Your task to perform on an android device: What's the weather today? Image 0: 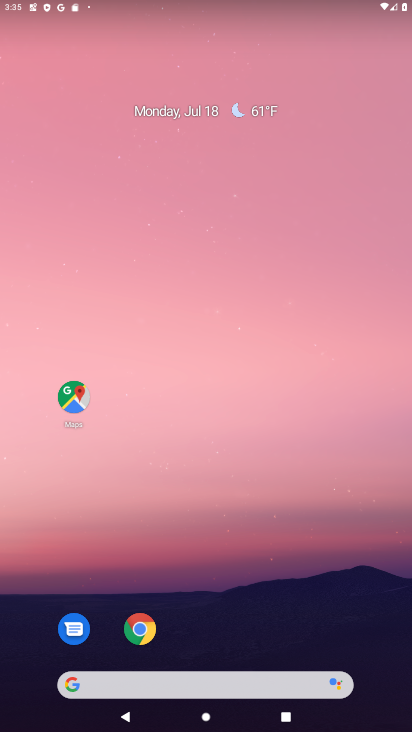
Step 0: drag from (251, 633) to (247, 313)
Your task to perform on an android device: What's the weather today? Image 1: 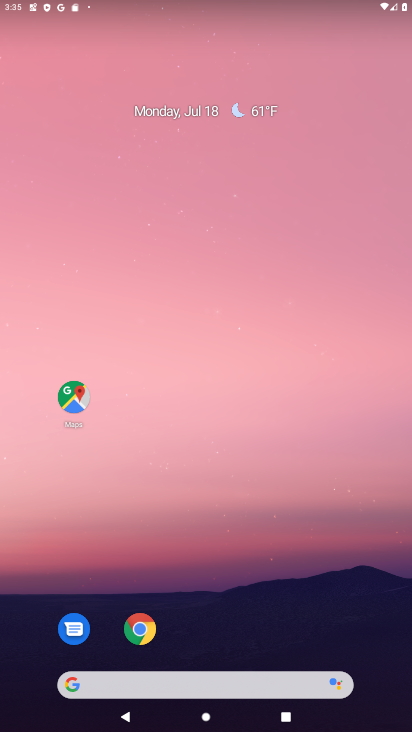
Step 1: drag from (189, 660) to (227, 260)
Your task to perform on an android device: What's the weather today? Image 2: 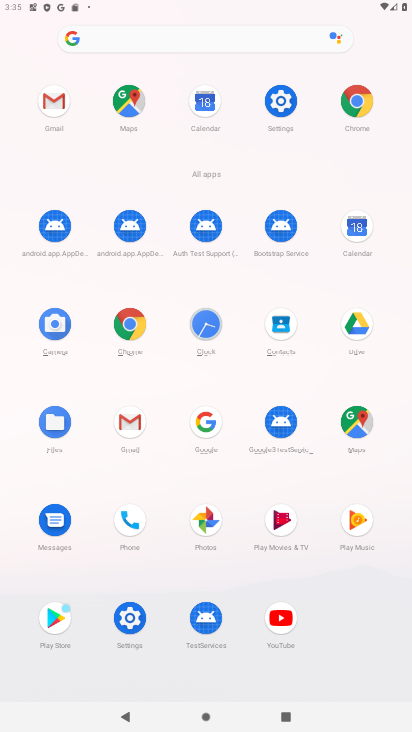
Step 2: click (192, 420)
Your task to perform on an android device: What's the weather today? Image 3: 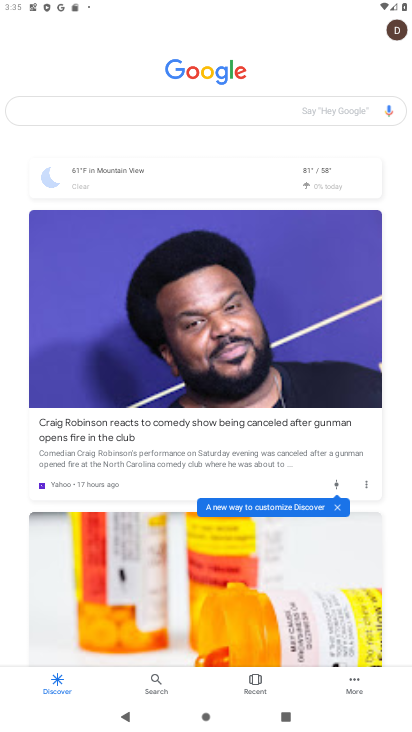
Step 3: click (124, 115)
Your task to perform on an android device: What's the weather today? Image 4: 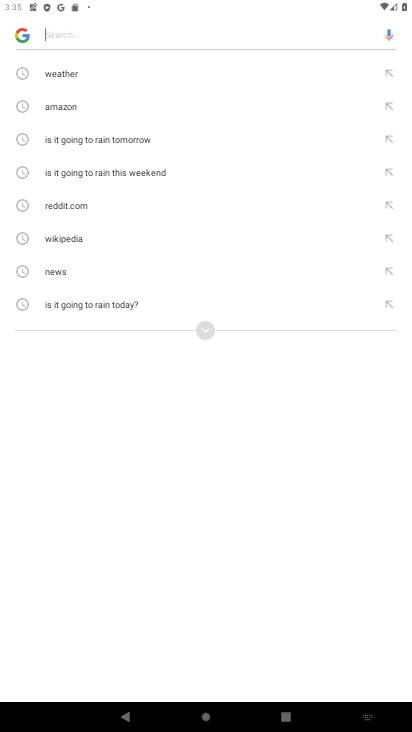
Step 4: click (204, 329)
Your task to perform on an android device: What's the weather today? Image 5: 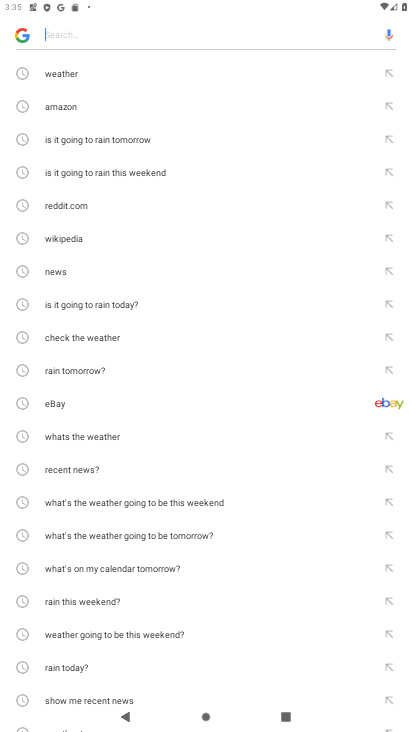
Step 5: click (39, 74)
Your task to perform on an android device: What's the weather today? Image 6: 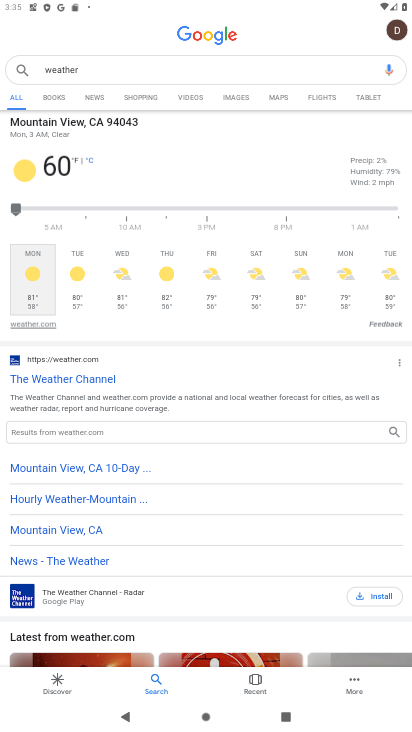
Step 6: task complete